Your task to perform on an android device: Add apple airpods to the cart on ebay, then select checkout. Image 0: 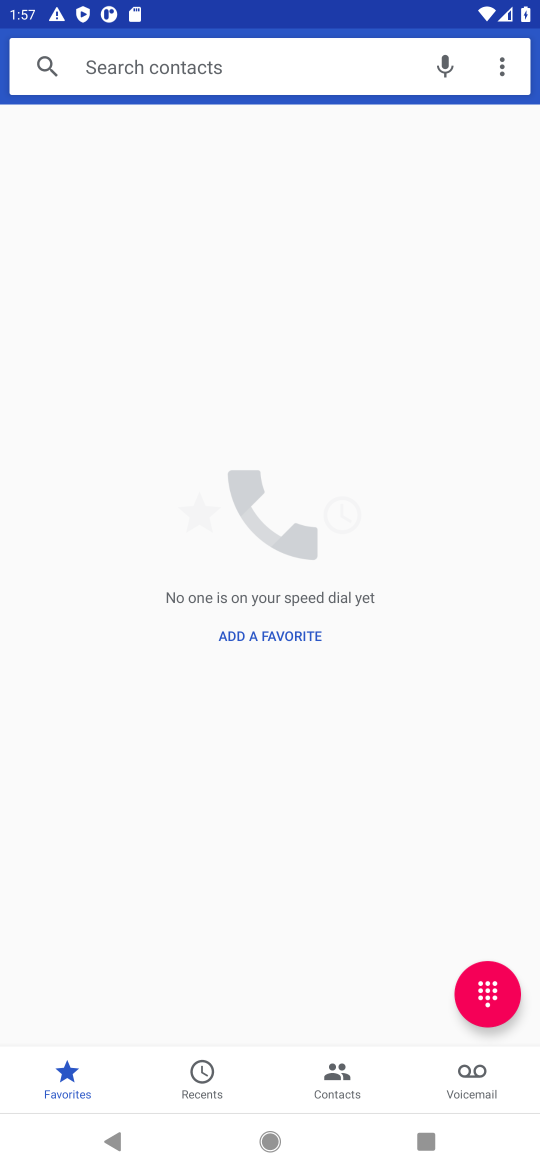
Step 0: press home button
Your task to perform on an android device: Add apple airpods to the cart on ebay, then select checkout. Image 1: 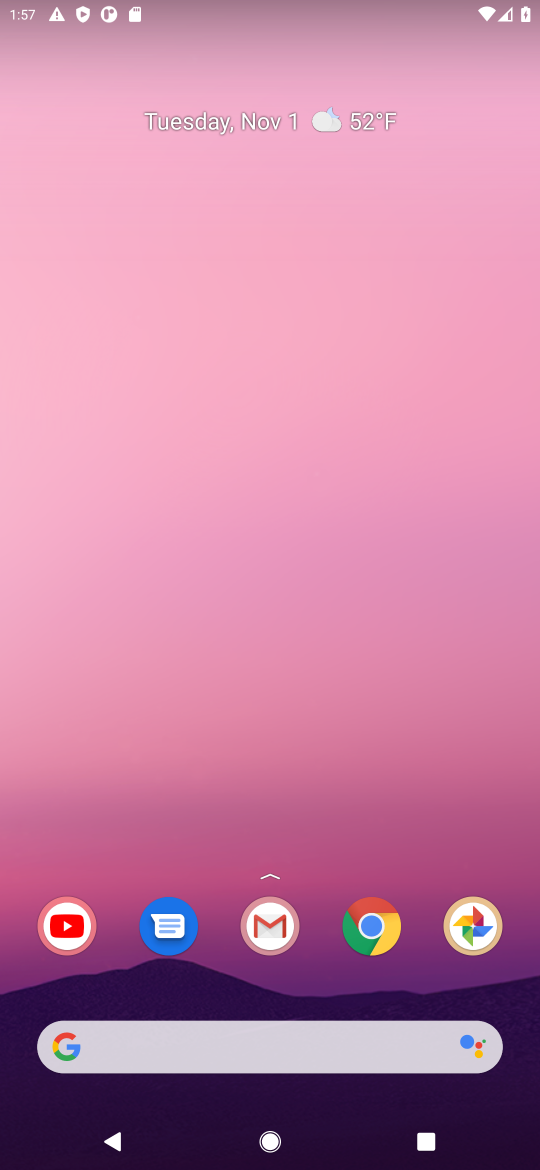
Step 1: click (379, 932)
Your task to perform on an android device: Add apple airpods to the cart on ebay, then select checkout. Image 2: 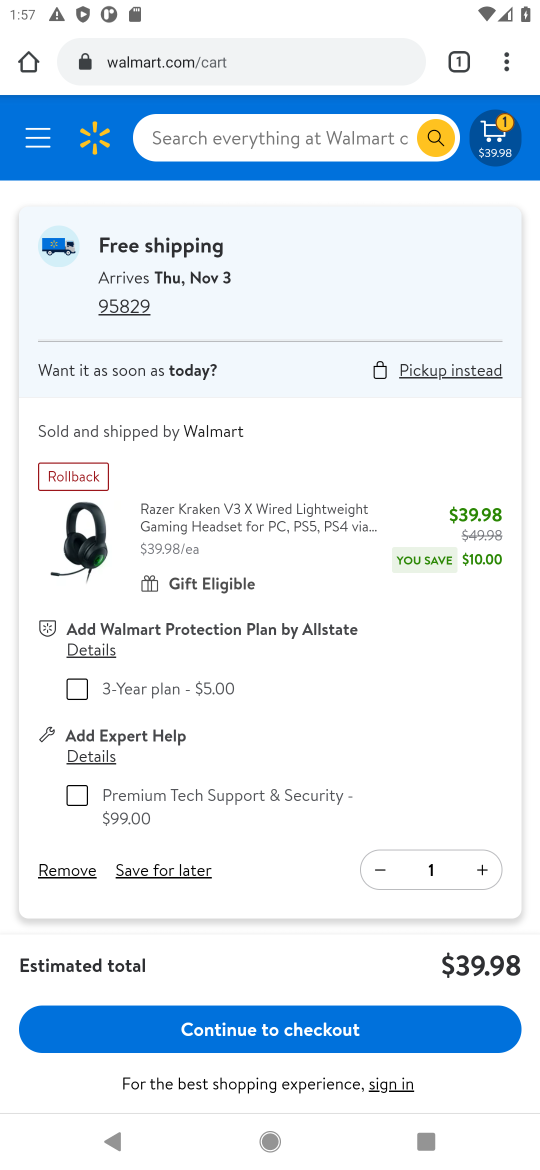
Step 2: click (151, 58)
Your task to perform on an android device: Add apple airpods to the cart on ebay, then select checkout. Image 3: 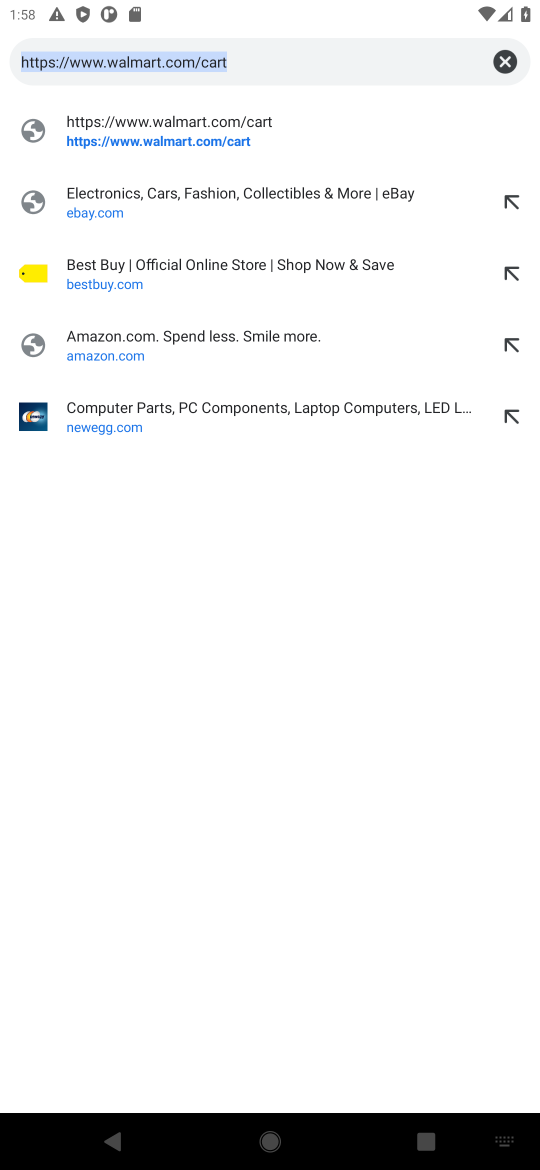
Step 3: type "ebay"
Your task to perform on an android device: Add apple airpods to the cart on ebay, then select checkout. Image 4: 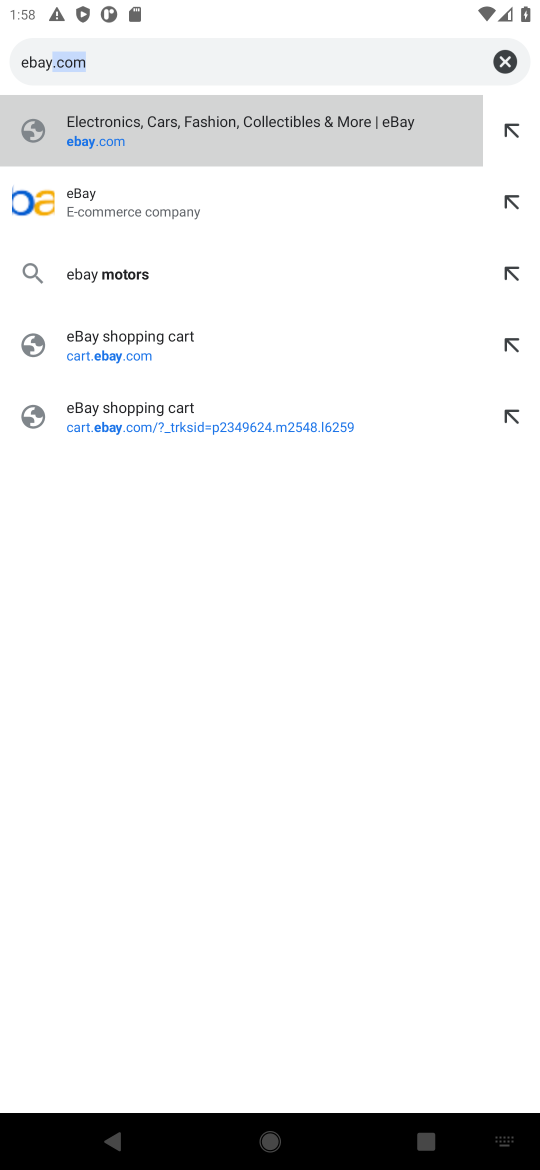
Step 4: press enter
Your task to perform on an android device: Add apple airpods to the cart on ebay, then select checkout. Image 5: 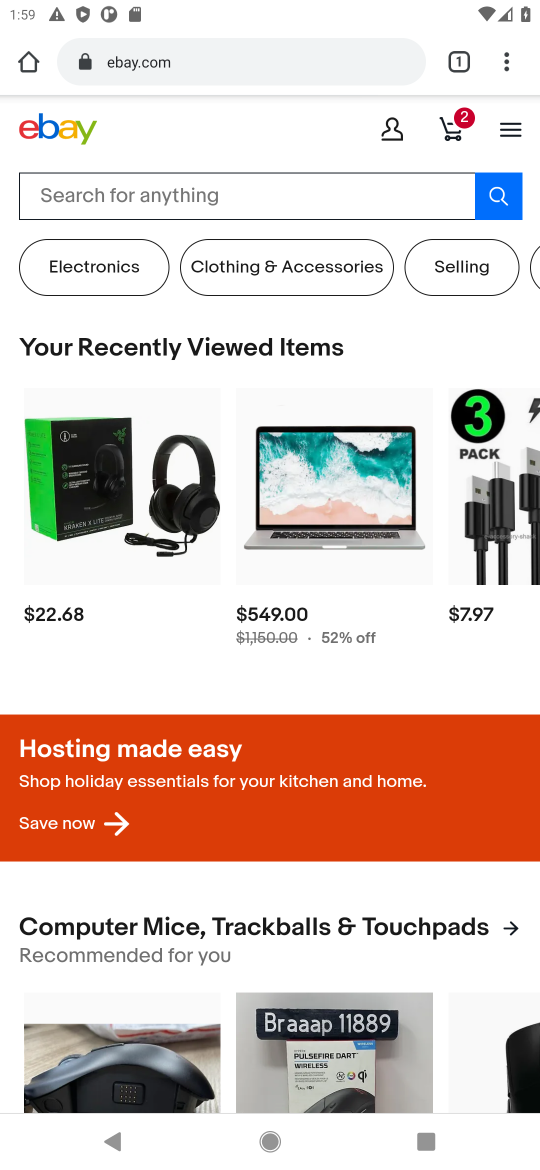
Step 5: click (345, 197)
Your task to perform on an android device: Add apple airpods to the cart on ebay, then select checkout. Image 6: 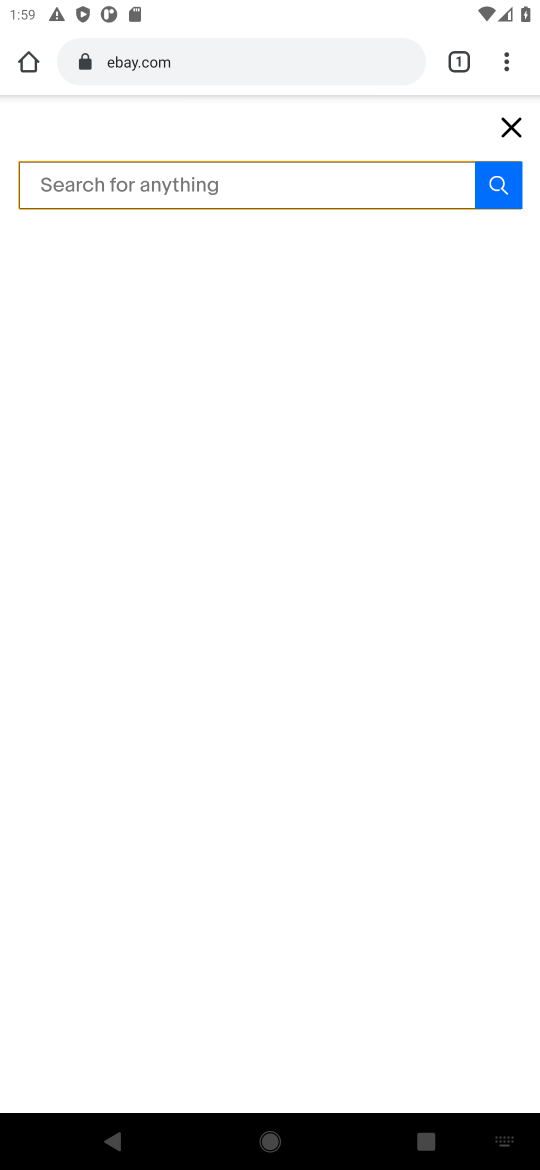
Step 6: type "apple airpods"
Your task to perform on an android device: Add apple airpods to the cart on ebay, then select checkout. Image 7: 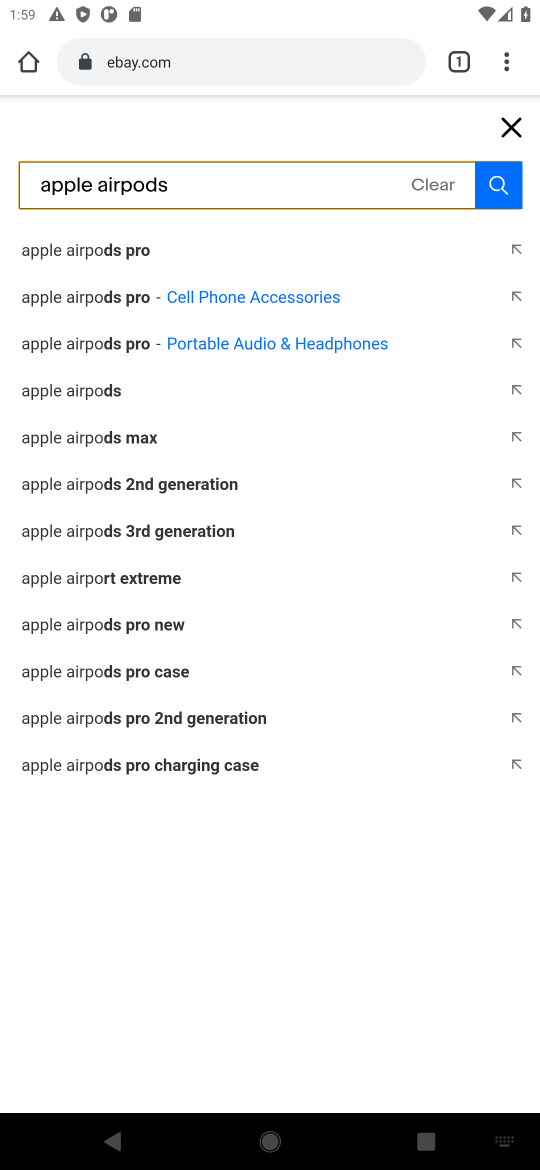
Step 7: press enter
Your task to perform on an android device: Add apple airpods to the cart on ebay, then select checkout. Image 8: 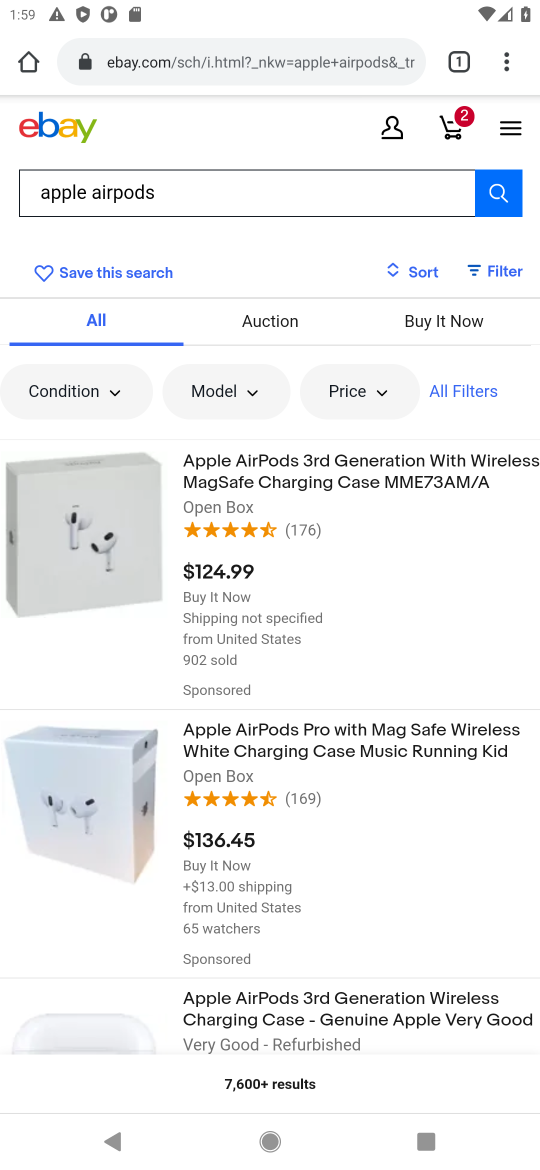
Step 8: click (334, 486)
Your task to perform on an android device: Add apple airpods to the cart on ebay, then select checkout. Image 9: 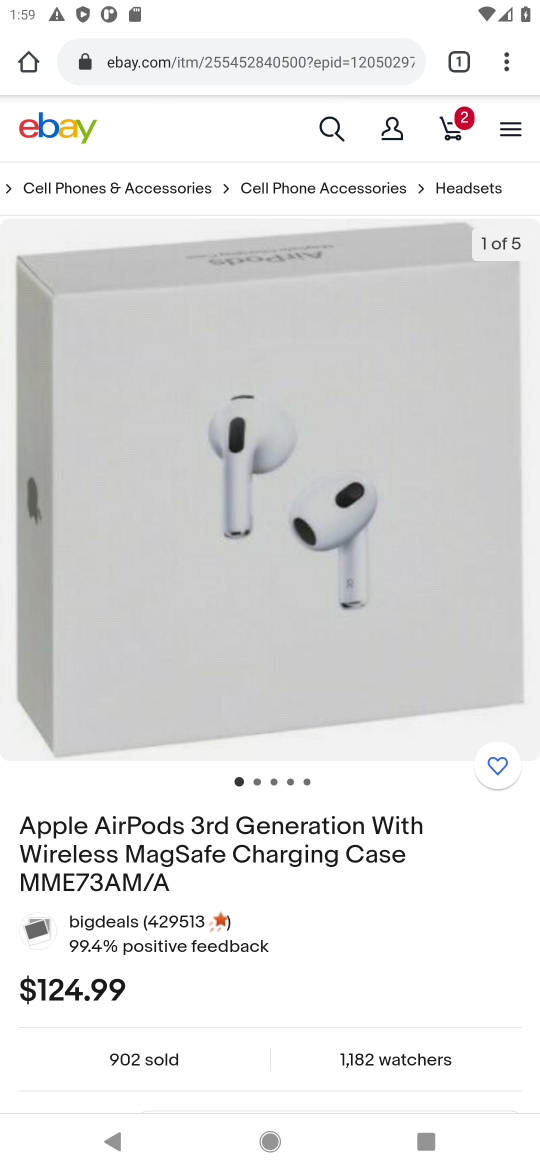
Step 9: drag from (321, 755) to (304, 458)
Your task to perform on an android device: Add apple airpods to the cart on ebay, then select checkout. Image 10: 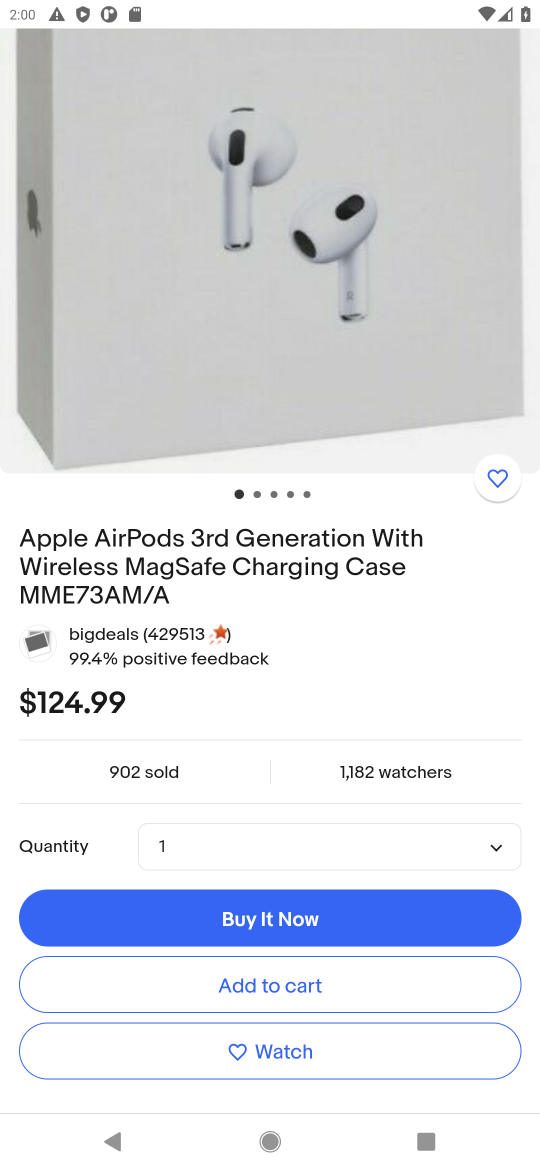
Step 10: click (284, 977)
Your task to perform on an android device: Add apple airpods to the cart on ebay, then select checkout. Image 11: 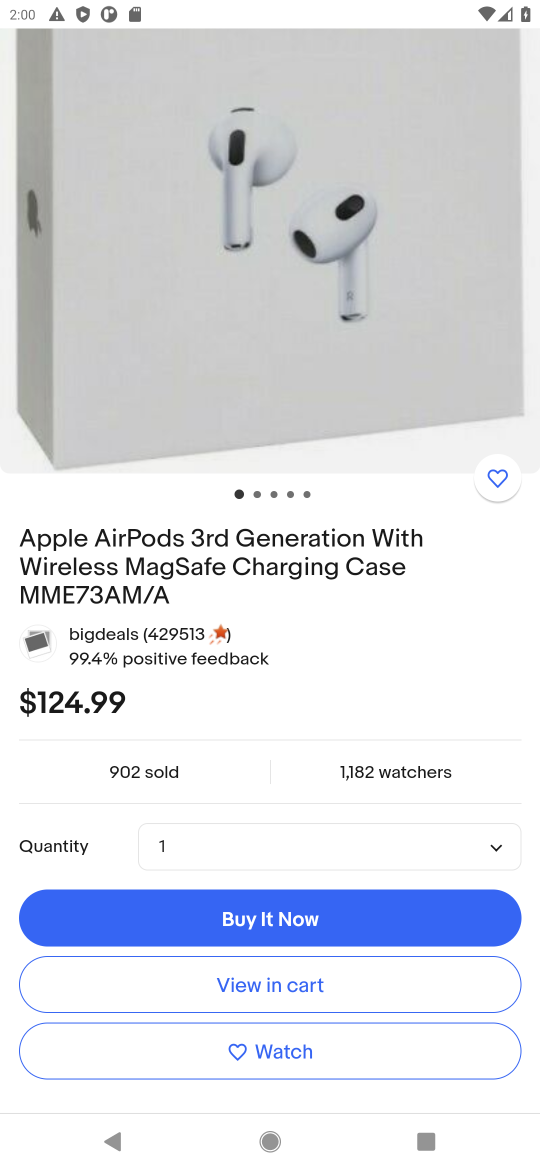
Step 11: click (284, 977)
Your task to perform on an android device: Add apple airpods to the cart on ebay, then select checkout. Image 12: 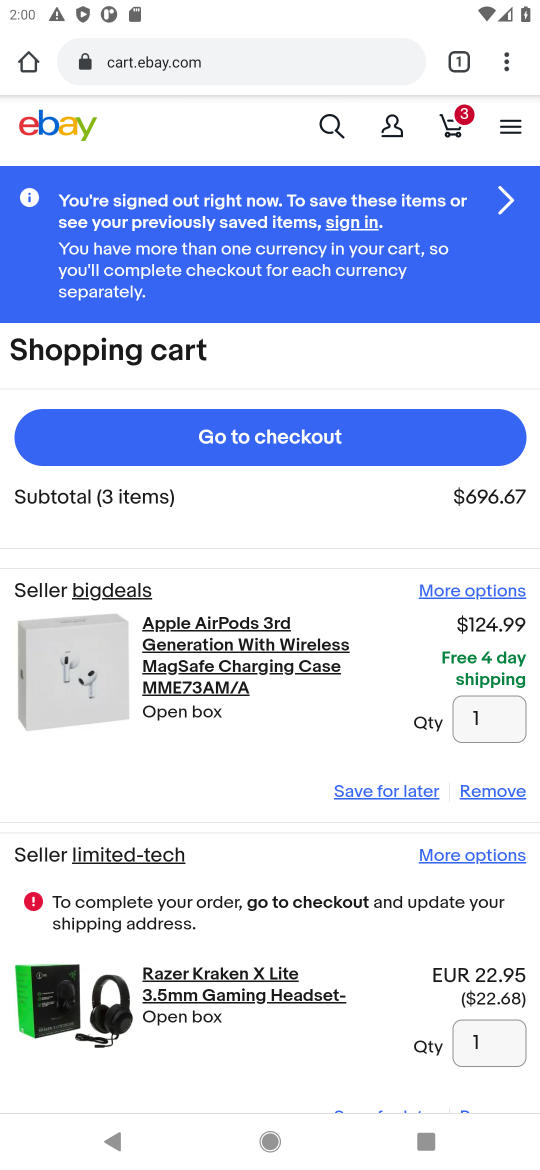
Step 12: click (269, 440)
Your task to perform on an android device: Add apple airpods to the cart on ebay, then select checkout. Image 13: 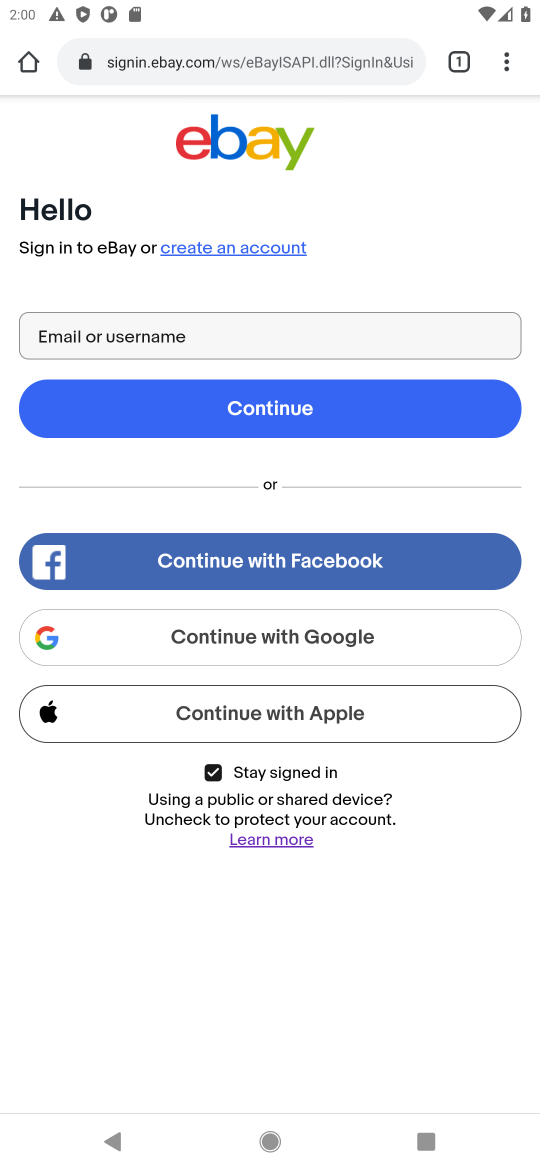
Step 13: task complete